Your task to perform on an android device: toggle location history Image 0: 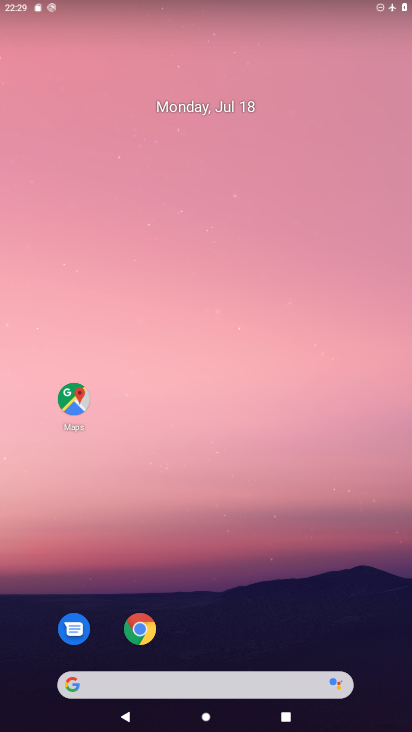
Step 0: drag from (271, 632) to (246, 11)
Your task to perform on an android device: toggle location history Image 1: 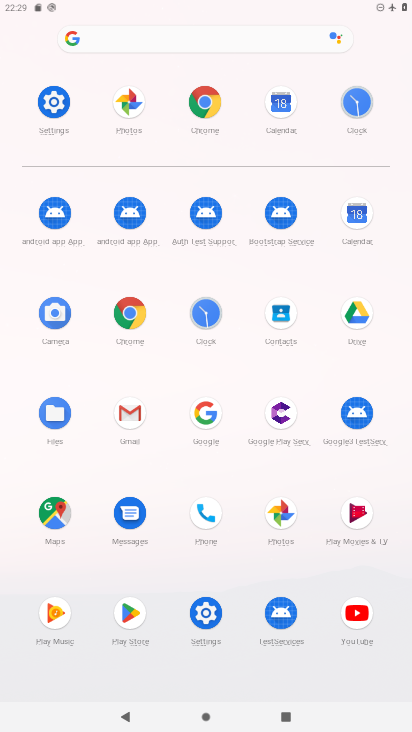
Step 1: click (55, 106)
Your task to perform on an android device: toggle location history Image 2: 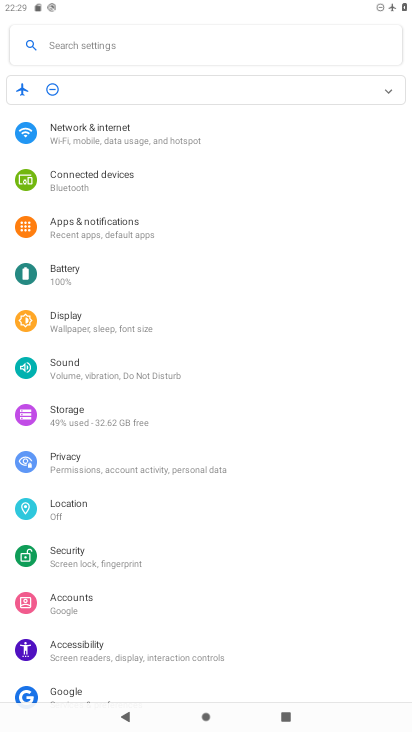
Step 2: click (57, 107)
Your task to perform on an android device: toggle location history Image 3: 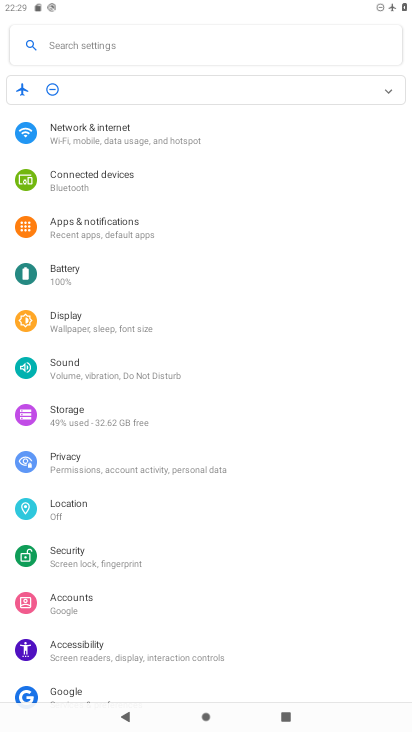
Step 3: click (394, 92)
Your task to perform on an android device: toggle location history Image 4: 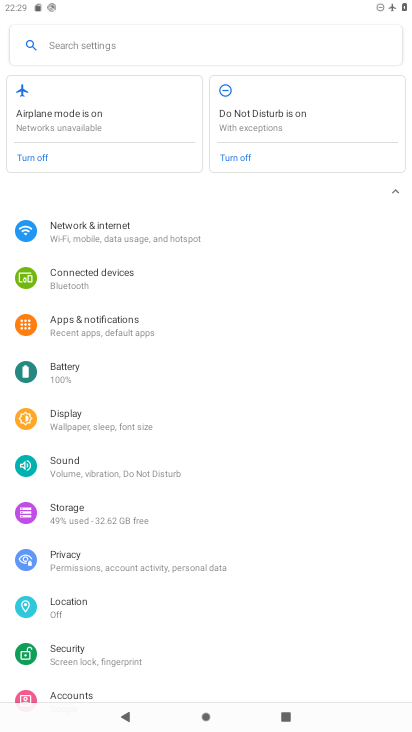
Step 4: click (100, 599)
Your task to perform on an android device: toggle location history Image 5: 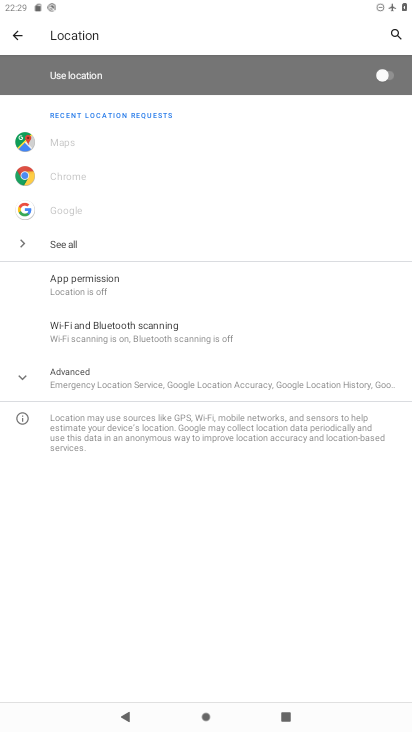
Step 5: click (127, 381)
Your task to perform on an android device: toggle location history Image 6: 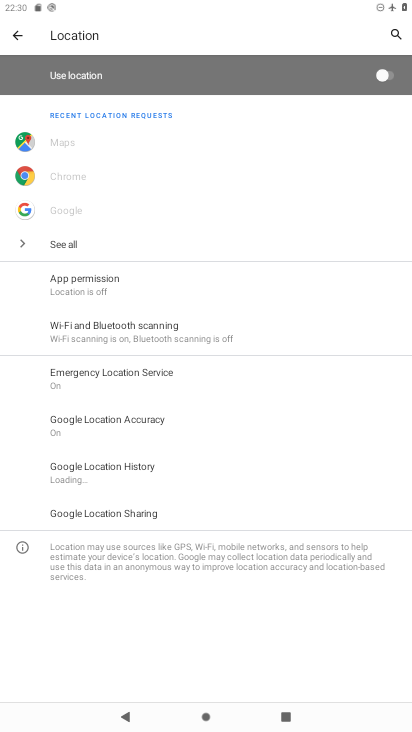
Step 6: click (133, 463)
Your task to perform on an android device: toggle location history Image 7: 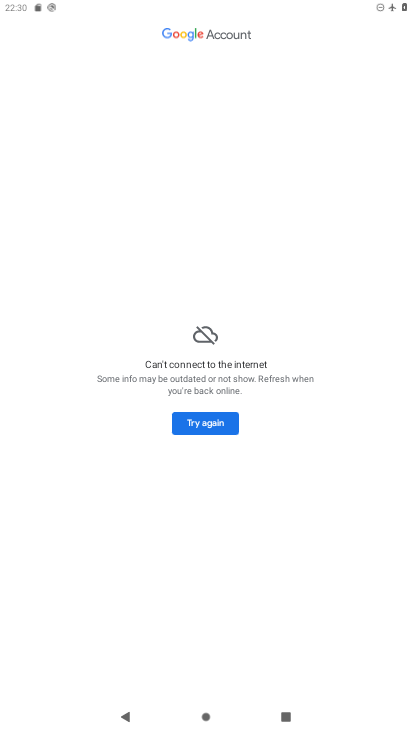
Step 7: task complete